Your task to perform on an android device: add a contact in the contacts app Image 0: 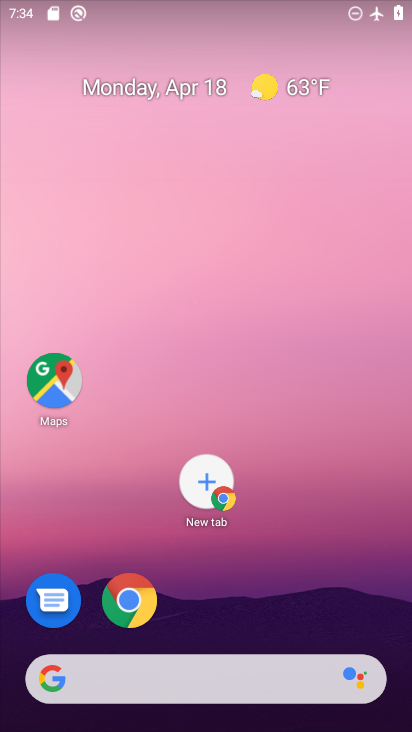
Step 0: drag from (320, 614) to (153, 0)
Your task to perform on an android device: add a contact in the contacts app Image 1: 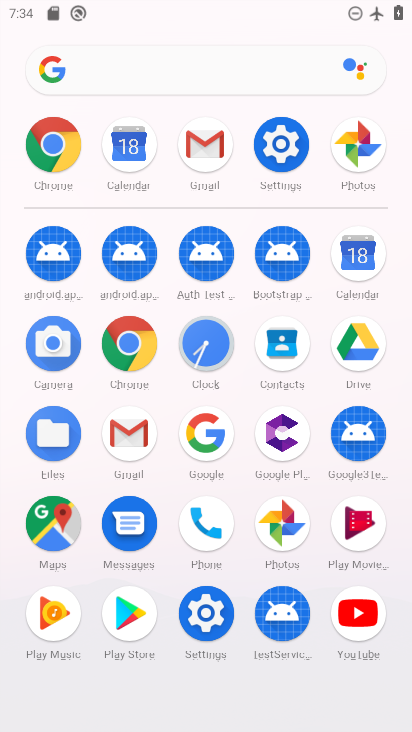
Step 1: drag from (173, 580) to (157, 131)
Your task to perform on an android device: add a contact in the contacts app Image 2: 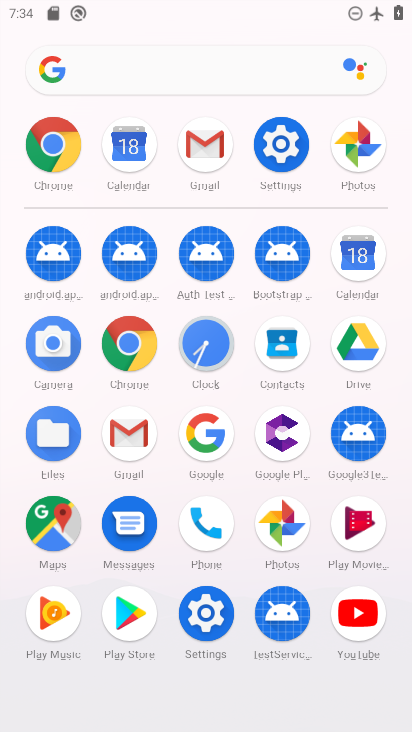
Step 2: click (277, 343)
Your task to perform on an android device: add a contact in the contacts app Image 3: 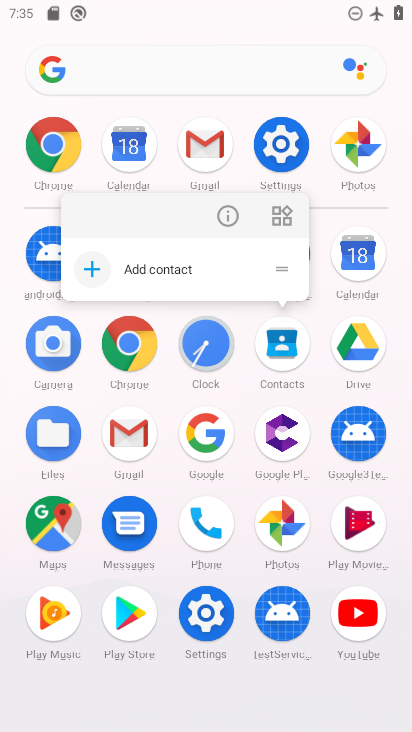
Step 3: click (281, 361)
Your task to perform on an android device: add a contact in the contacts app Image 4: 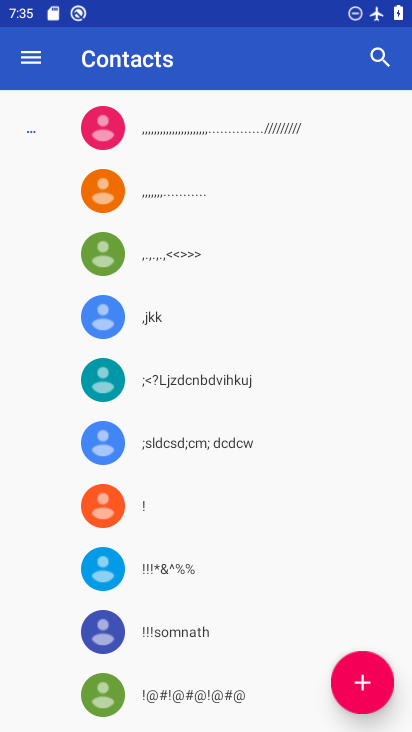
Step 4: click (356, 684)
Your task to perform on an android device: add a contact in the contacts app Image 5: 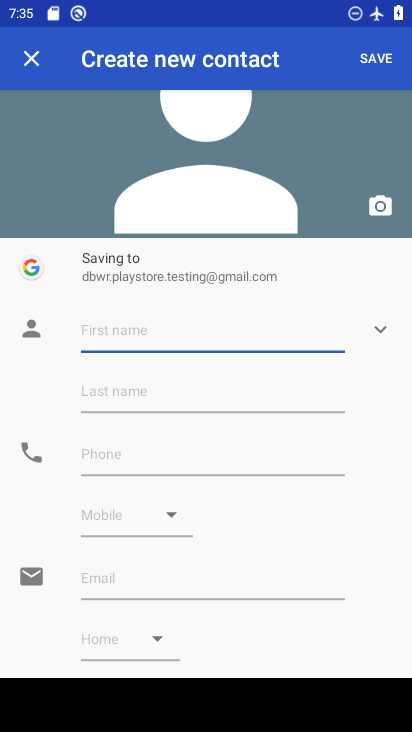
Step 5: type "jai"
Your task to perform on an android device: add a contact in the contacts app Image 6: 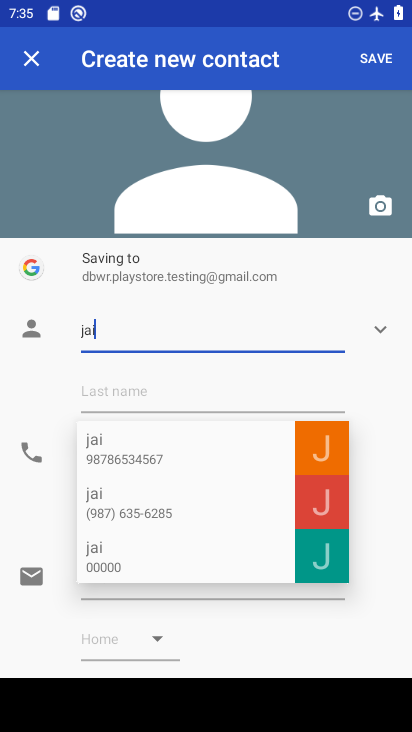
Step 6: type " babu"
Your task to perform on an android device: add a contact in the contacts app Image 7: 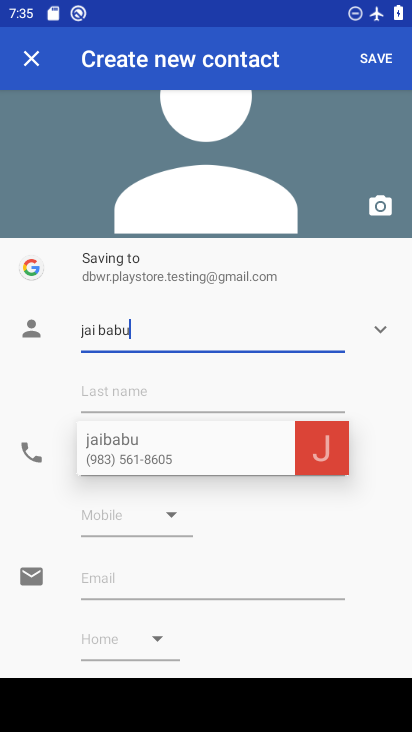
Step 7: click (411, 410)
Your task to perform on an android device: add a contact in the contacts app Image 8: 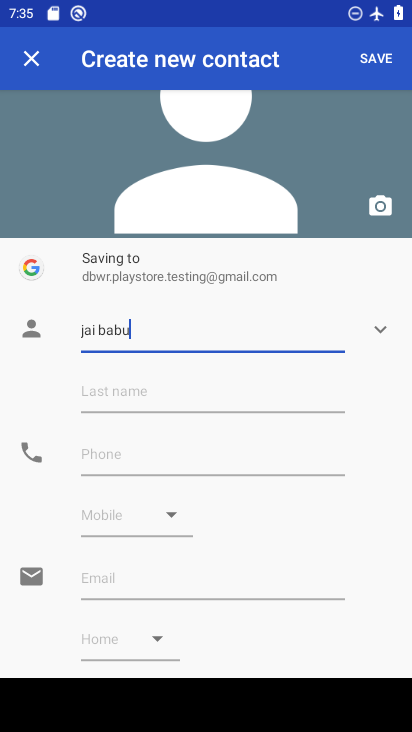
Step 8: click (153, 444)
Your task to perform on an android device: add a contact in the contacts app Image 9: 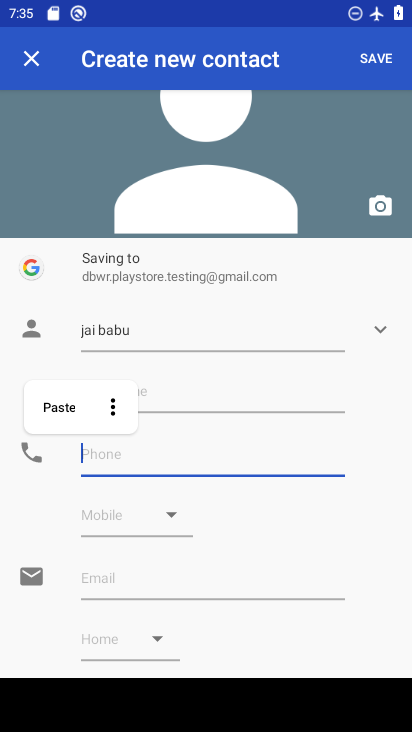
Step 9: type "09898987878"
Your task to perform on an android device: add a contact in the contacts app Image 10: 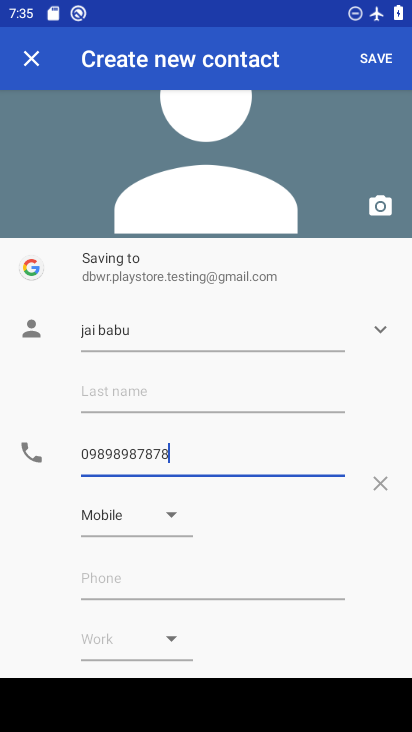
Step 10: type ""
Your task to perform on an android device: add a contact in the contacts app Image 11: 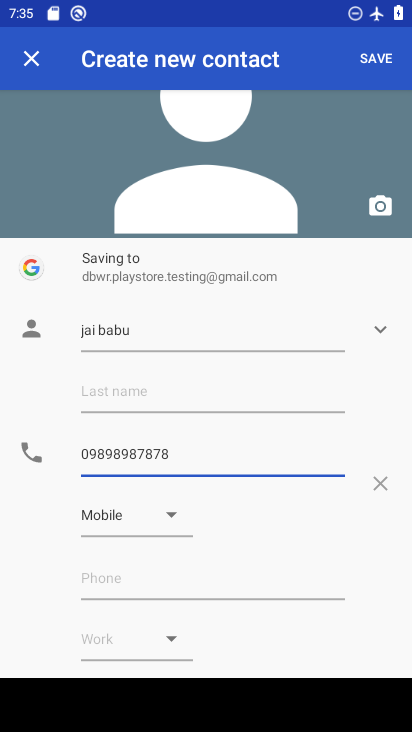
Step 11: click (368, 62)
Your task to perform on an android device: add a contact in the contacts app Image 12: 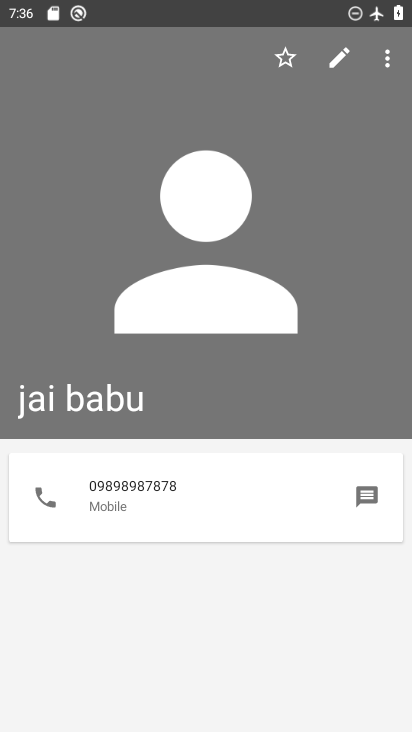
Step 12: task complete